Your task to perform on an android device: Show me productivity apps on the Play Store Image 0: 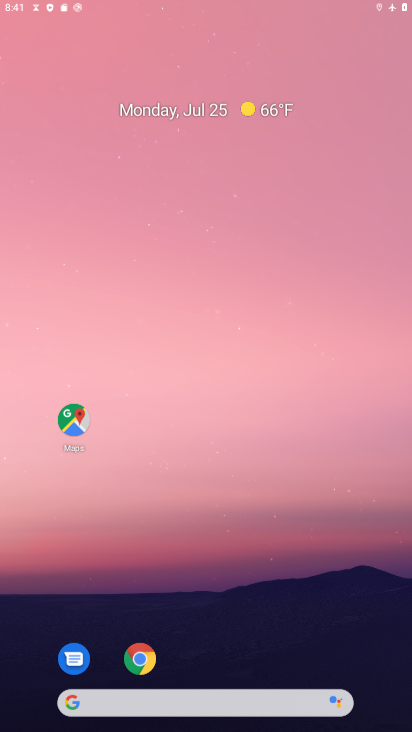
Step 0: drag from (232, 438) to (175, 0)
Your task to perform on an android device: Show me productivity apps on the Play Store Image 1: 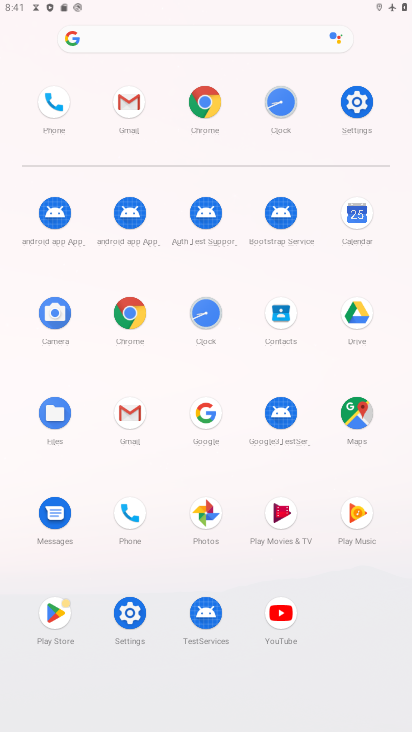
Step 1: click (48, 611)
Your task to perform on an android device: Show me productivity apps on the Play Store Image 2: 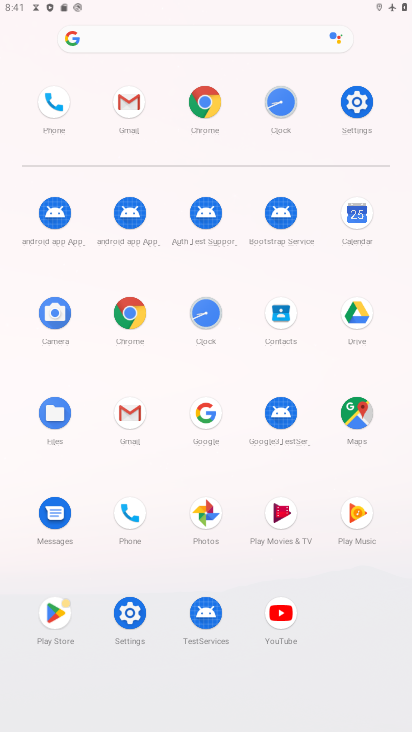
Step 2: click (48, 610)
Your task to perform on an android device: Show me productivity apps on the Play Store Image 3: 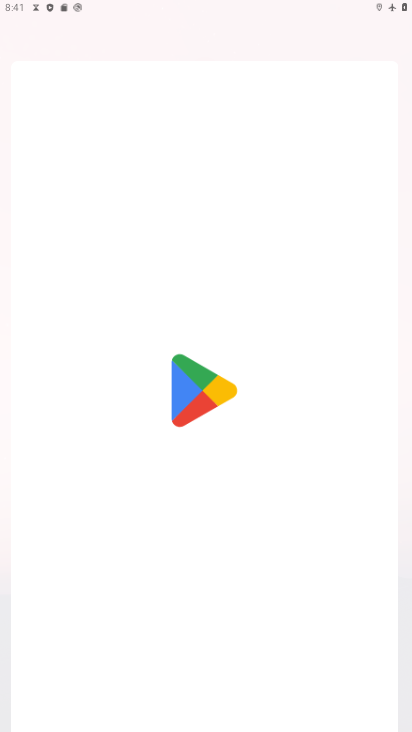
Step 3: click (50, 610)
Your task to perform on an android device: Show me productivity apps on the Play Store Image 4: 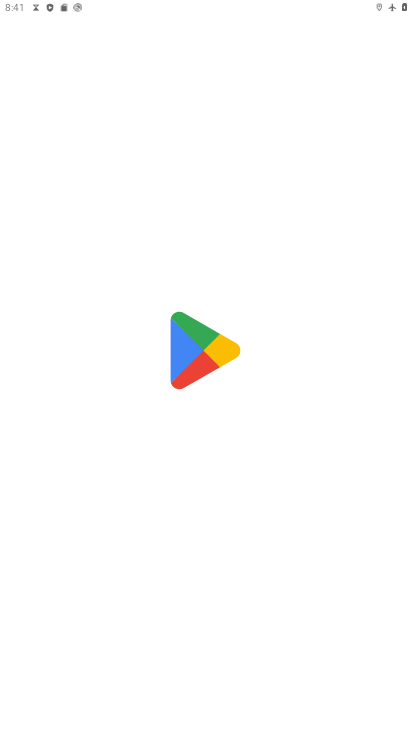
Step 4: click (50, 610)
Your task to perform on an android device: Show me productivity apps on the Play Store Image 5: 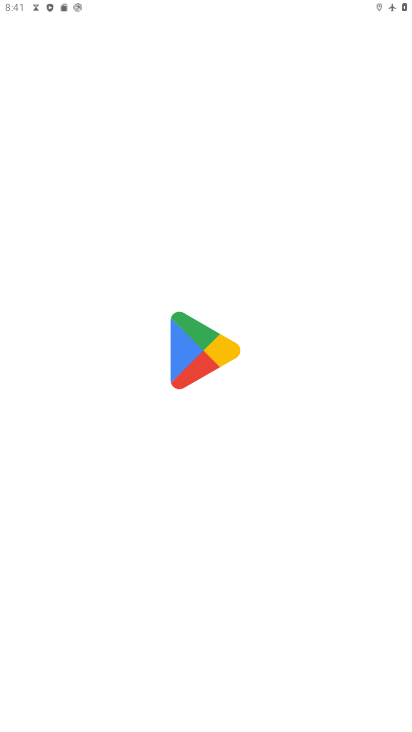
Step 5: click (49, 609)
Your task to perform on an android device: Show me productivity apps on the Play Store Image 6: 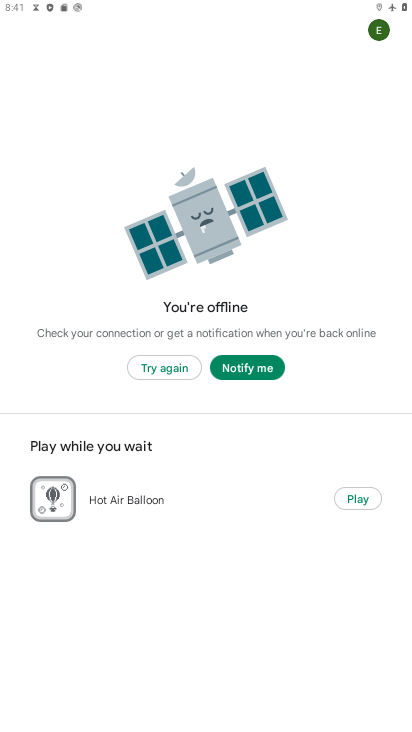
Step 6: task complete